Your task to perform on an android device: See recent photos Image 0: 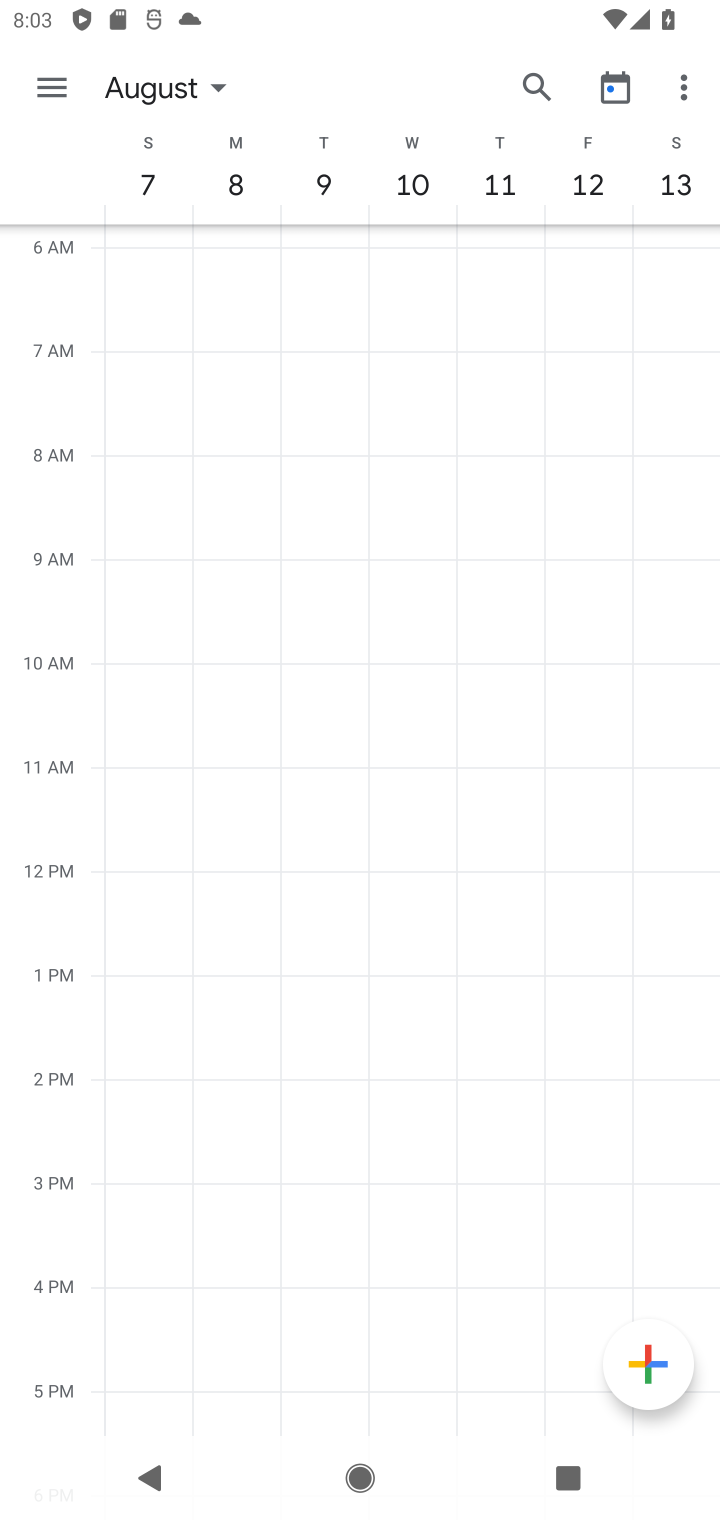
Step 0: press home button
Your task to perform on an android device: See recent photos Image 1: 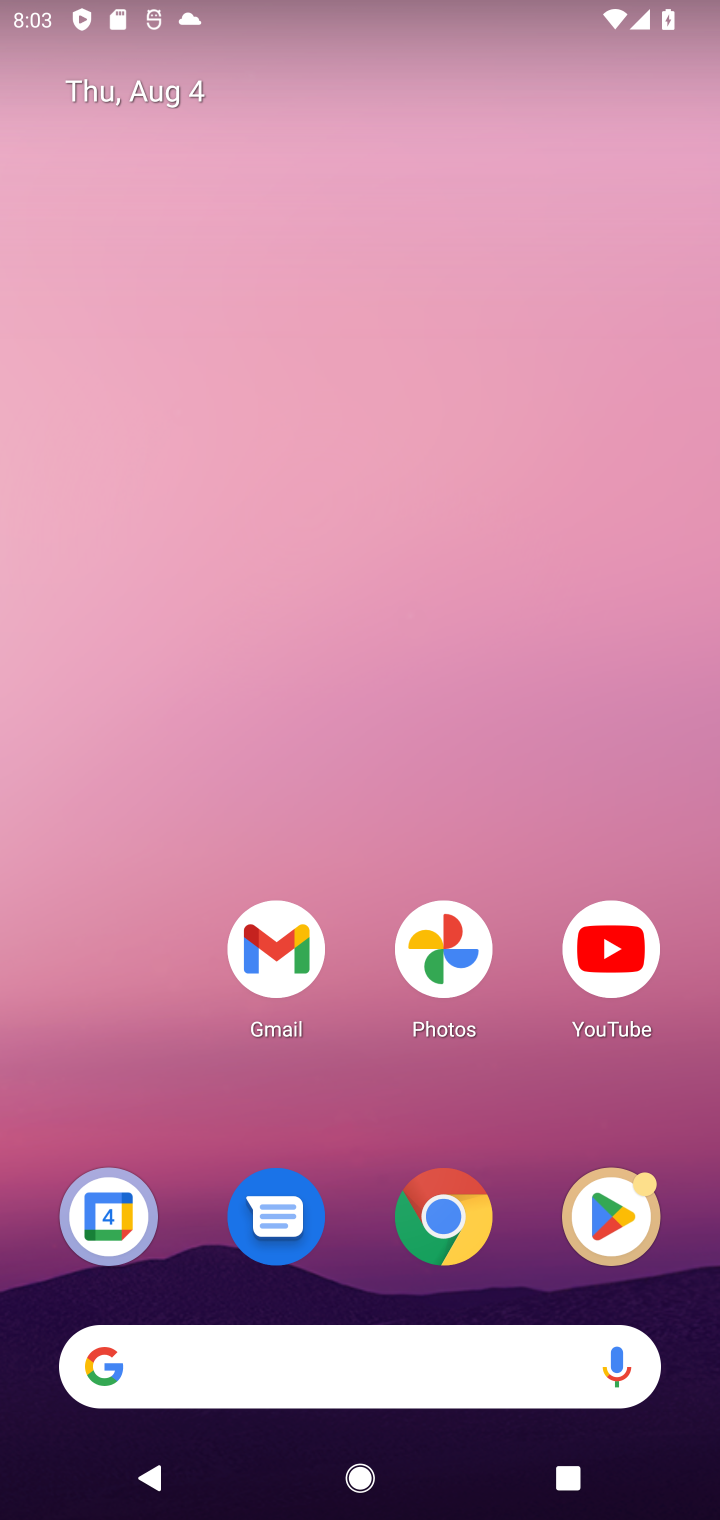
Step 1: drag from (378, 1150) to (427, 191)
Your task to perform on an android device: See recent photos Image 2: 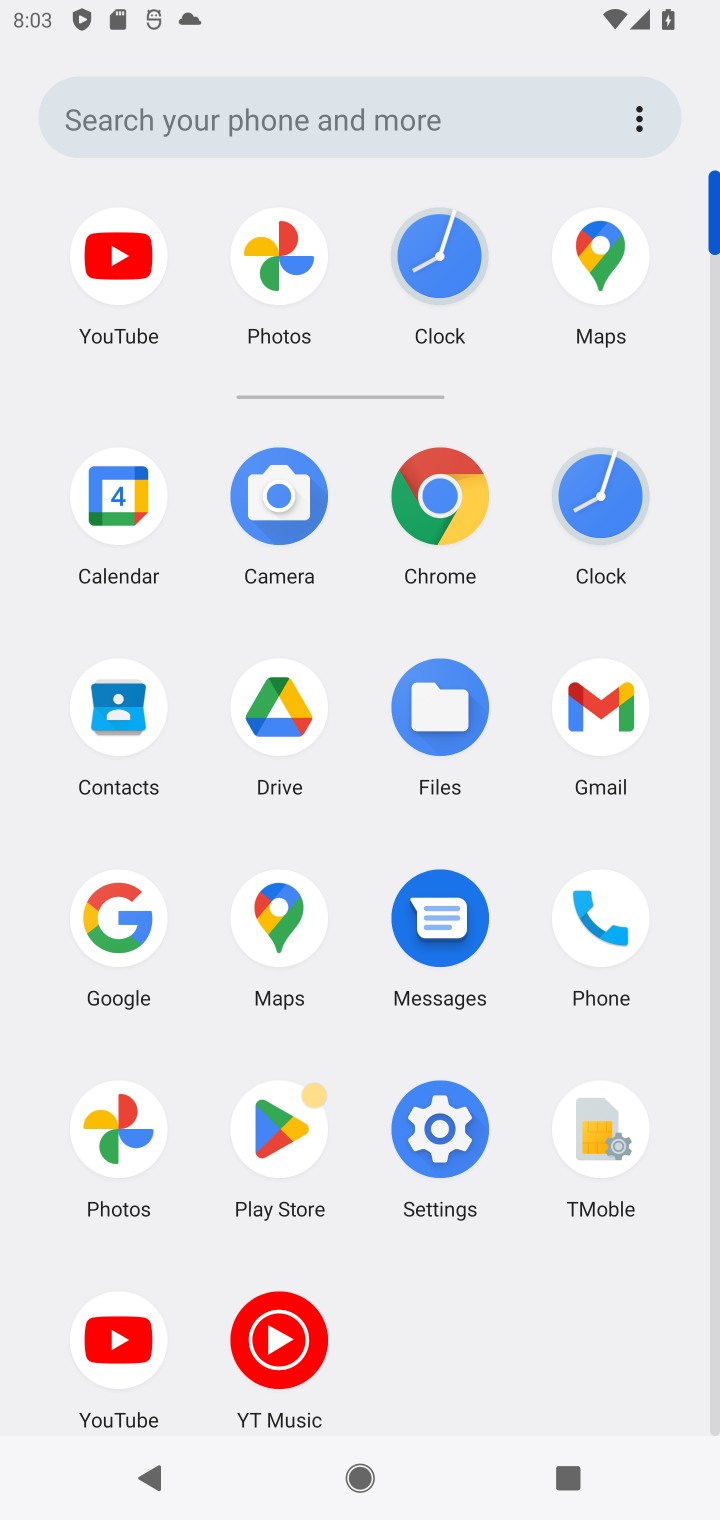
Step 2: click (111, 1126)
Your task to perform on an android device: See recent photos Image 3: 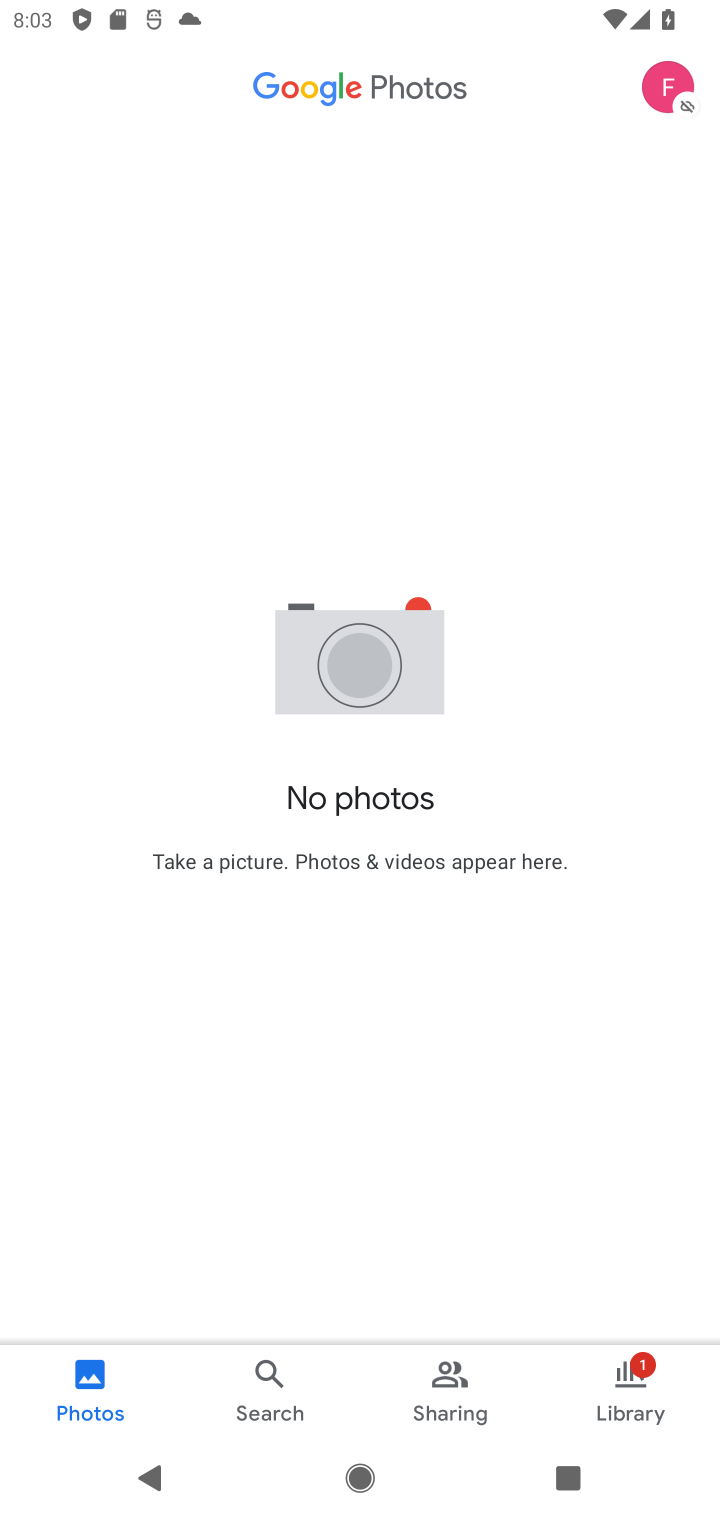
Step 3: task complete